Your task to perform on an android device: Go to accessibility settings Image 0: 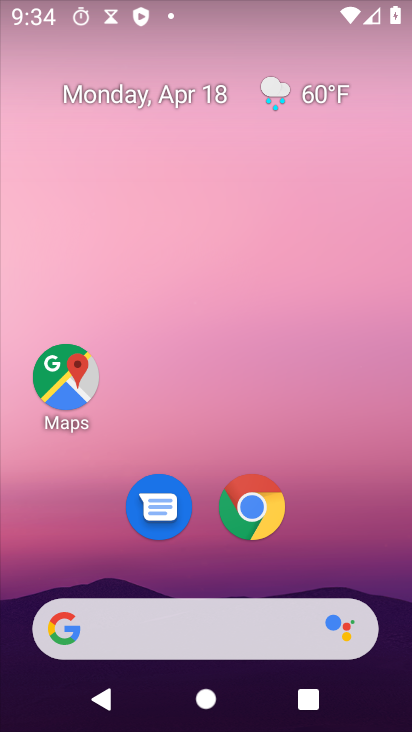
Step 0: drag from (320, 562) to (311, 133)
Your task to perform on an android device: Go to accessibility settings Image 1: 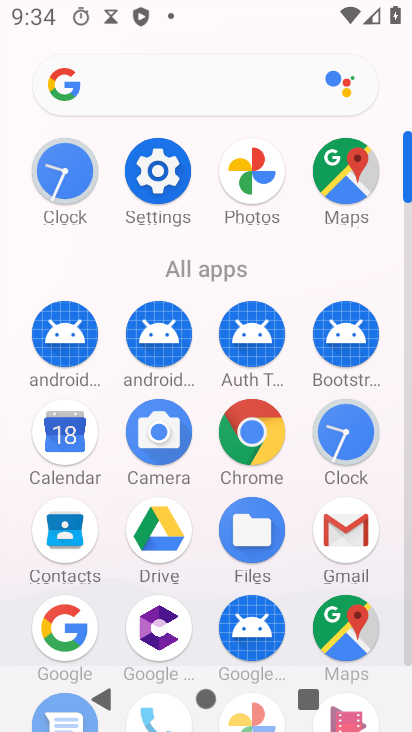
Step 1: click (161, 173)
Your task to perform on an android device: Go to accessibility settings Image 2: 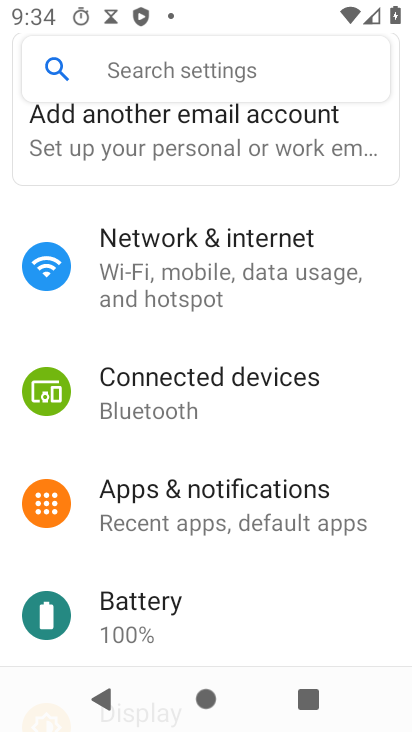
Step 2: drag from (200, 496) to (195, 387)
Your task to perform on an android device: Go to accessibility settings Image 3: 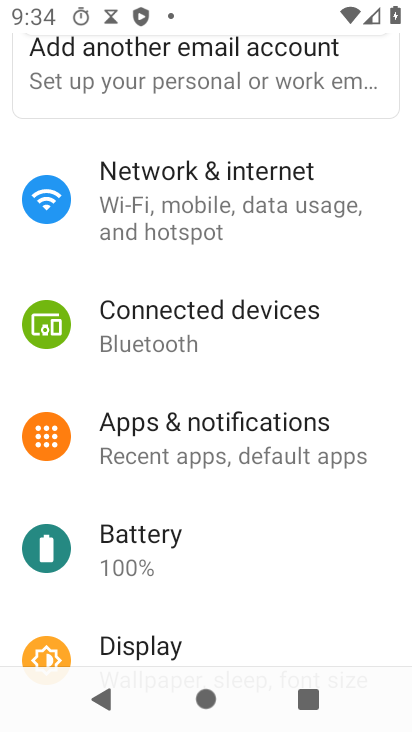
Step 3: drag from (208, 542) to (197, 464)
Your task to perform on an android device: Go to accessibility settings Image 4: 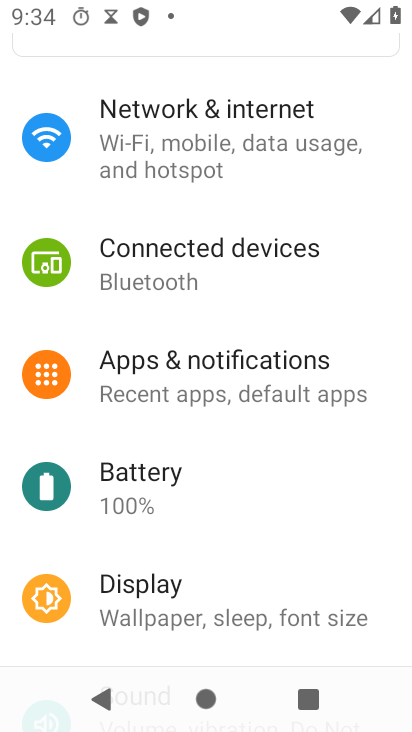
Step 4: drag from (146, 579) to (160, 483)
Your task to perform on an android device: Go to accessibility settings Image 5: 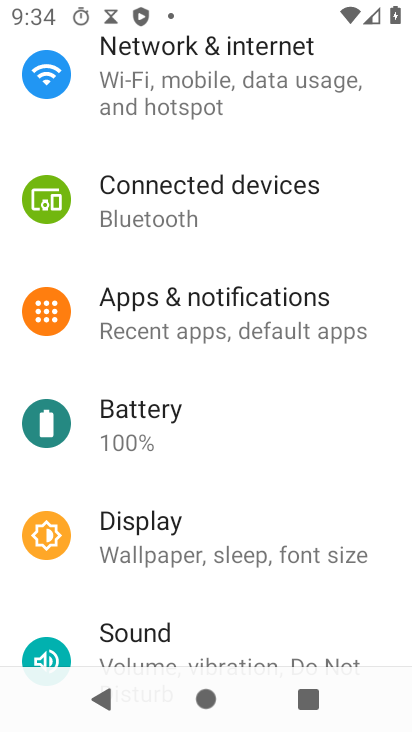
Step 5: drag from (199, 582) to (207, 482)
Your task to perform on an android device: Go to accessibility settings Image 6: 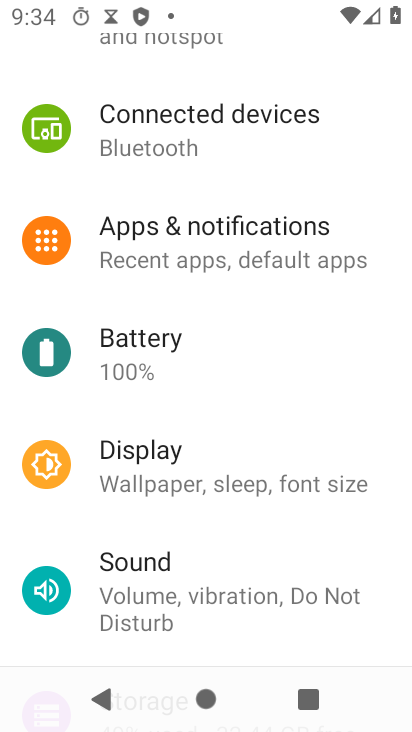
Step 6: drag from (202, 562) to (197, 482)
Your task to perform on an android device: Go to accessibility settings Image 7: 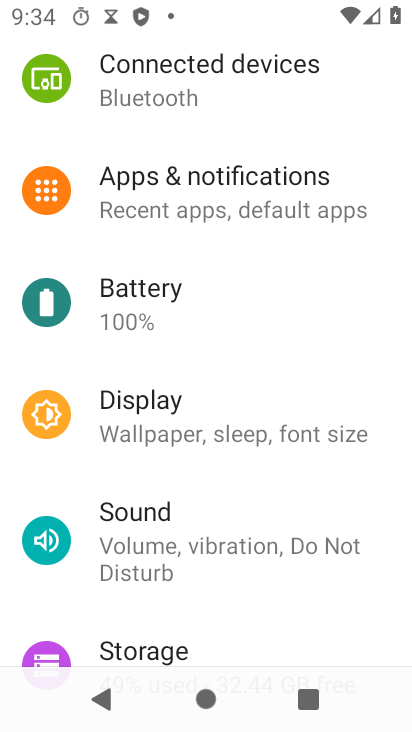
Step 7: drag from (181, 564) to (179, 482)
Your task to perform on an android device: Go to accessibility settings Image 8: 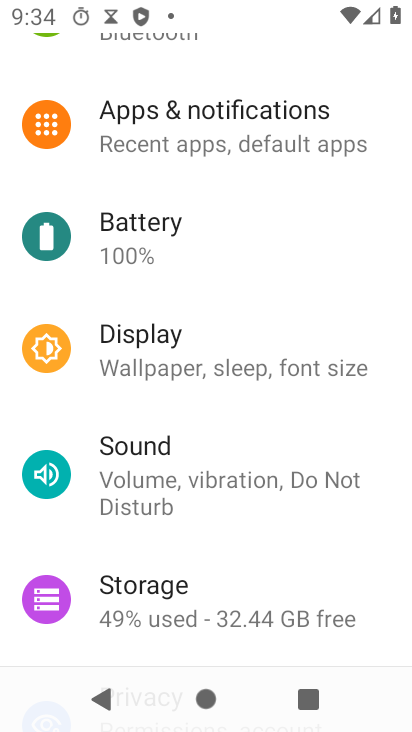
Step 8: drag from (179, 560) to (206, 480)
Your task to perform on an android device: Go to accessibility settings Image 9: 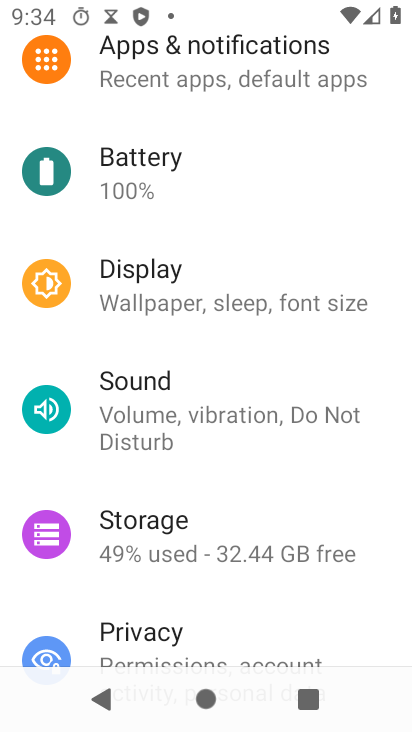
Step 9: drag from (189, 562) to (186, 468)
Your task to perform on an android device: Go to accessibility settings Image 10: 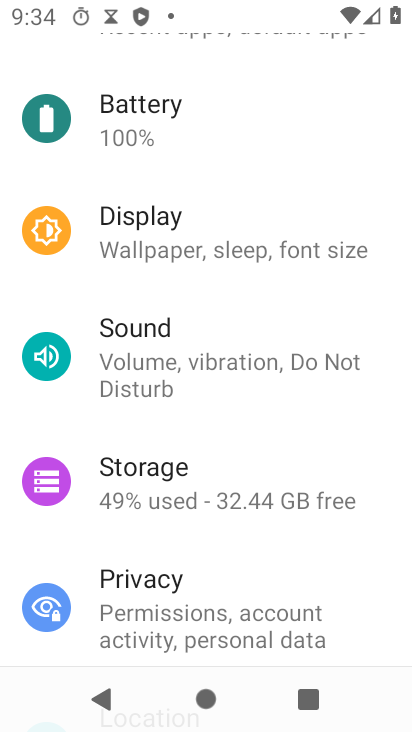
Step 10: drag from (174, 588) to (169, 509)
Your task to perform on an android device: Go to accessibility settings Image 11: 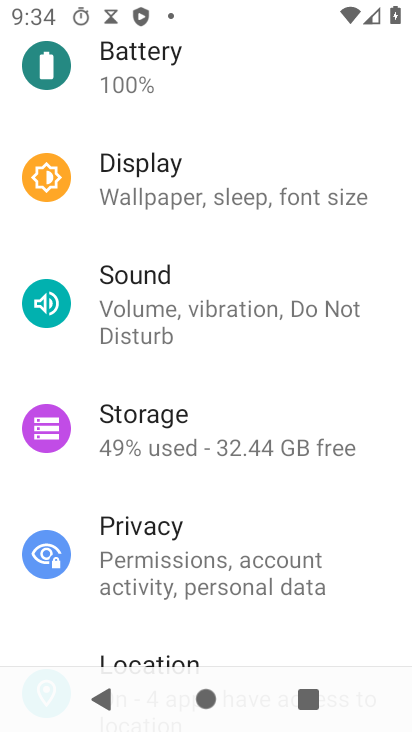
Step 11: drag from (122, 546) to (119, 448)
Your task to perform on an android device: Go to accessibility settings Image 12: 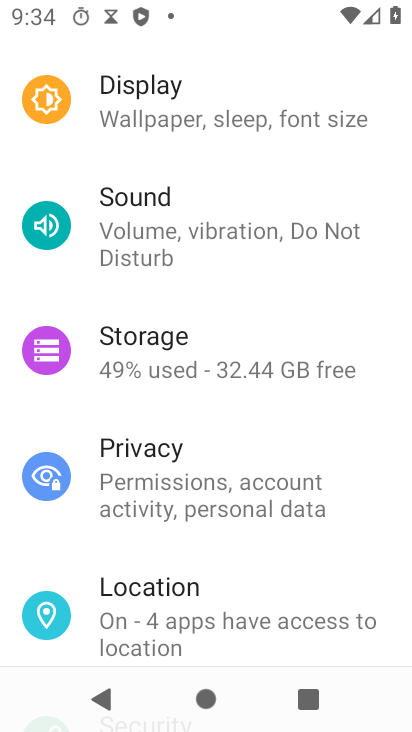
Step 12: drag from (193, 614) to (182, 515)
Your task to perform on an android device: Go to accessibility settings Image 13: 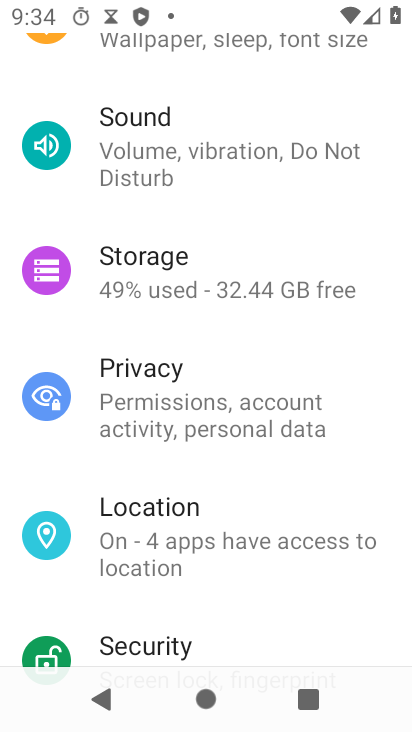
Step 13: drag from (210, 615) to (200, 498)
Your task to perform on an android device: Go to accessibility settings Image 14: 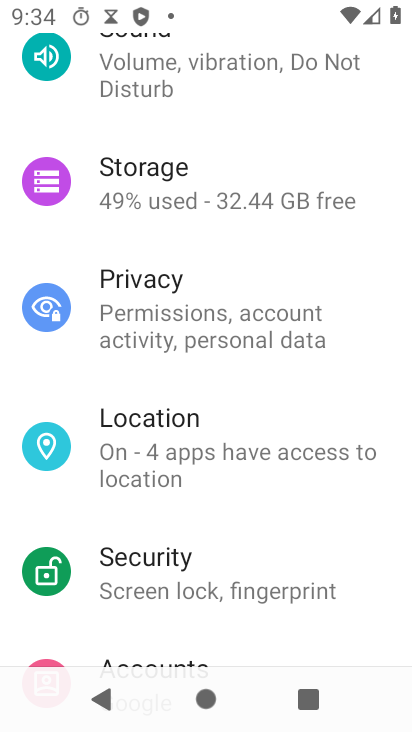
Step 14: drag from (219, 588) to (220, 483)
Your task to perform on an android device: Go to accessibility settings Image 15: 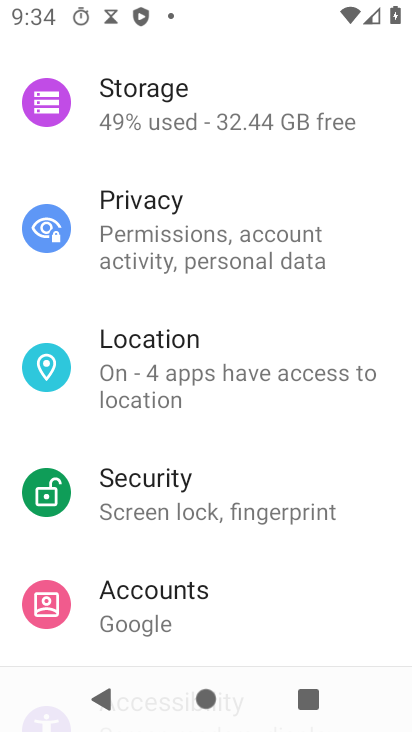
Step 15: drag from (200, 571) to (212, 481)
Your task to perform on an android device: Go to accessibility settings Image 16: 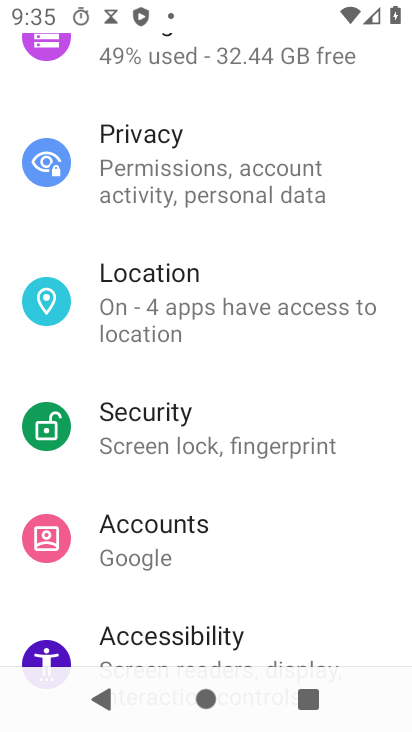
Step 16: drag from (217, 565) to (212, 444)
Your task to perform on an android device: Go to accessibility settings Image 17: 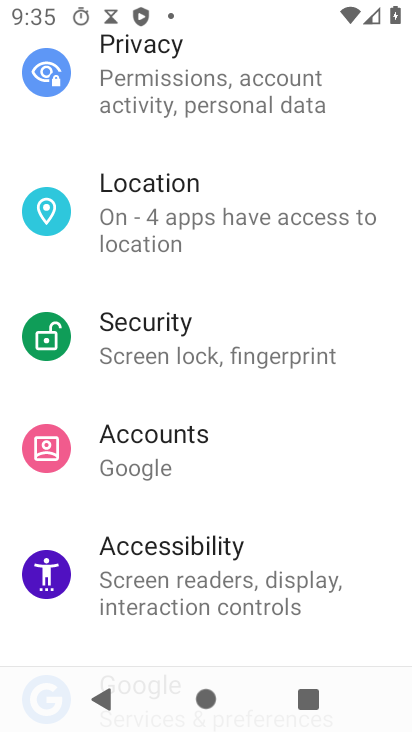
Step 17: click (183, 580)
Your task to perform on an android device: Go to accessibility settings Image 18: 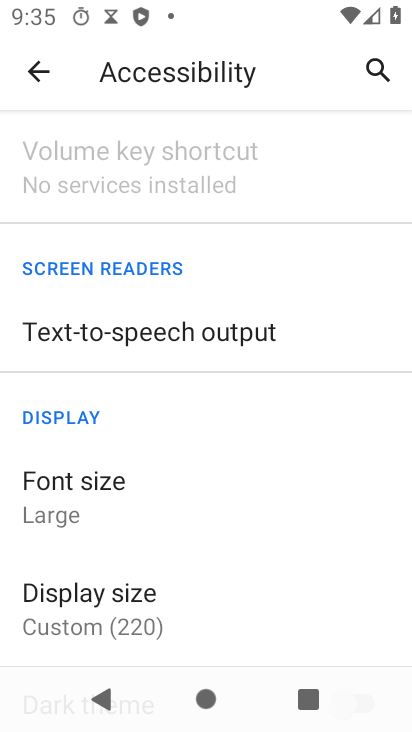
Step 18: task complete